Your task to perform on an android device: change the clock display to show seconds Image 0: 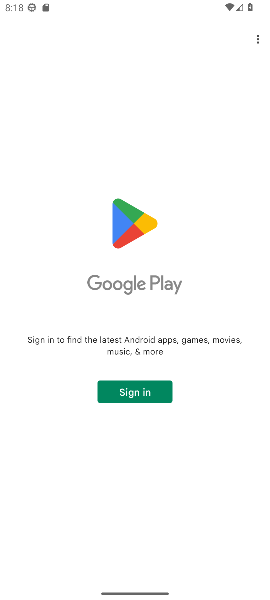
Step 0: press home button
Your task to perform on an android device: change the clock display to show seconds Image 1: 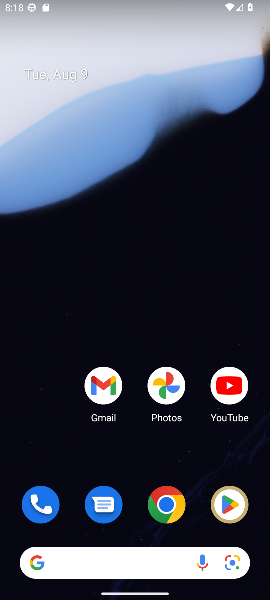
Step 1: drag from (125, 457) to (84, 50)
Your task to perform on an android device: change the clock display to show seconds Image 2: 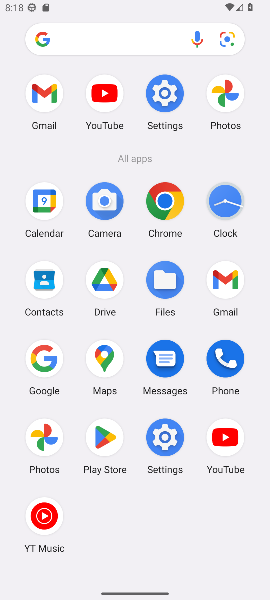
Step 2: click (226, 200)
Your task to perform on an android device: change the clock display to show seconds Image 3: 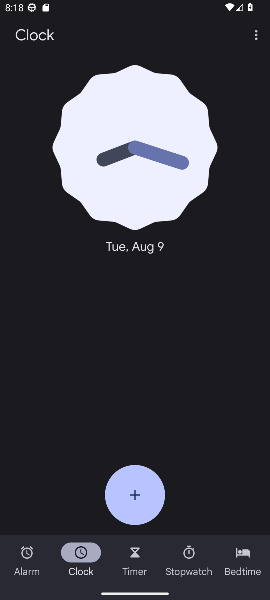
Step 3: click (256, 35)
Your task to perform on an android device: change the clock display to show seconds Image 4: 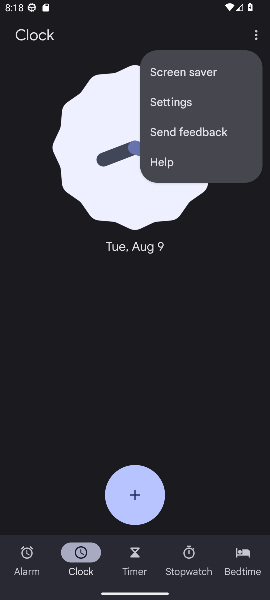
Step 4: click (177, 100)
Your task to perform on an android device: change the clock display to show seconds Image 5: 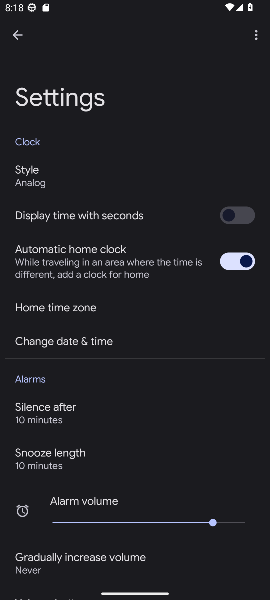
Step 5: click (35, 167)
Your task to perform on an android device: change the clock display to show seconds Image 6: 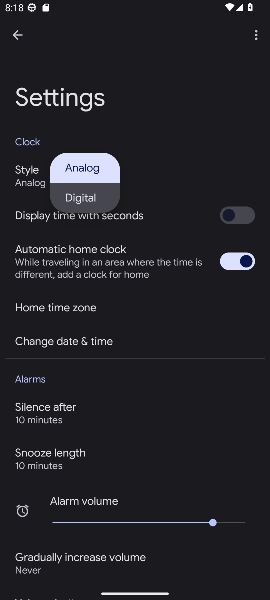
Step 6: click (66, 193)
Your task to perform on an android device: change the clock display to show seconds Image 7: 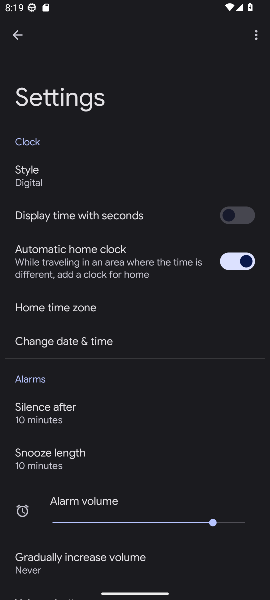
Step 7: task complete